Your task to perform on an android device: Add usb-c to usb-b to the cart on walmart.com Image 0: 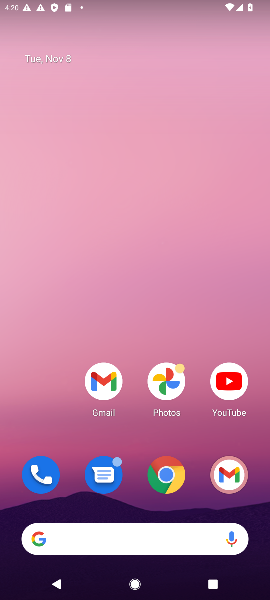
Step 0: drag from (109, 496) to (144, 18)
Your task to perform on an android device: Add usb-c to usb-b to the cart on walmart.com Image 1: 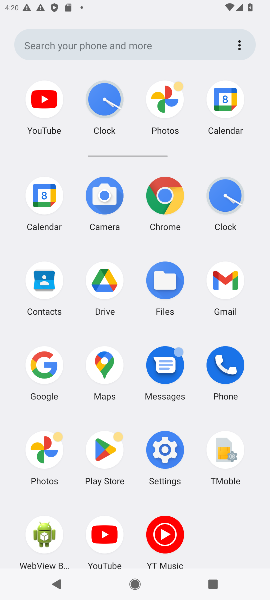
Step 1: click (42, 358)
Your task to perform on an android device: Add usb-c to usb-b to the cart on walmart.com Image 2: 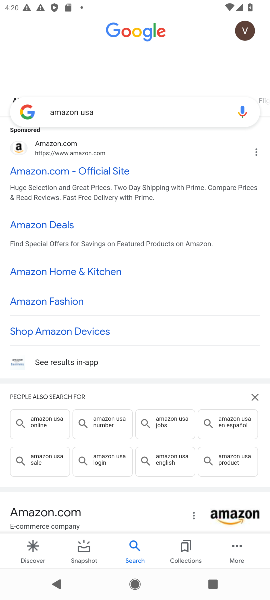
Step 2: click (101, 110)
Your task to perform on an android device: Add usb-c to usb-b to the cart on walmart.com Image 3: 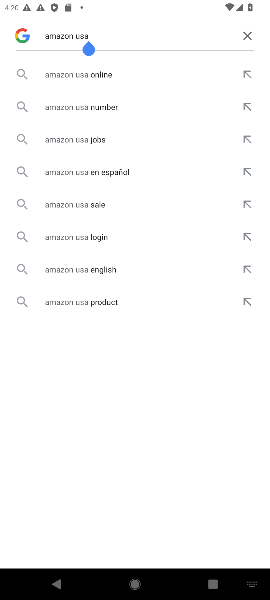
Step 3: click (244, 34)
Your task to perform on an android device: Add usb-c to usb-b to the cart on walmart.com Image 4: 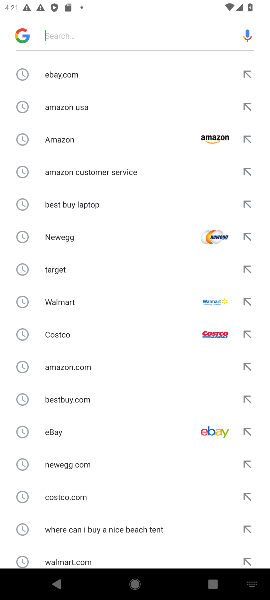
Step 4: click (129, 30)
Your task to perform on an android device: Add usb-c to usb-b to the cart on walmart.com Image 5: 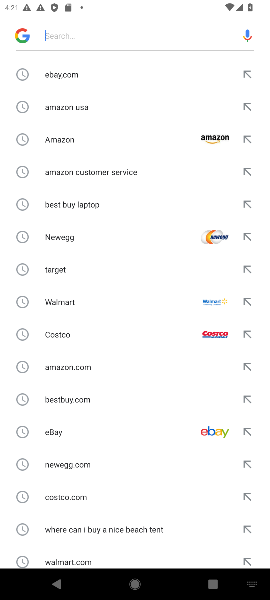
Step 5: type "walmart "
Your task to perform on an android device: Add usb-c to usb-b to the cart on walmart.com Image 6: 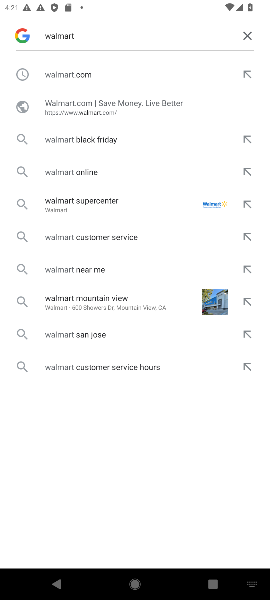
Step 6: click (78, 73)
Your task to perform on an android device: Add usb-c to usb-b to the cart on walmart.com Image 7: 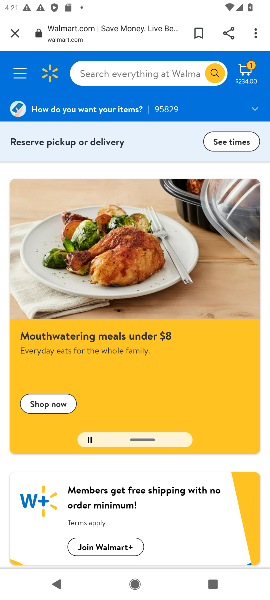
Step 7: click (117, 68)
Your task to perform on an android device: Add usb-c to usb-b to the cart on walmart.com Image 8: 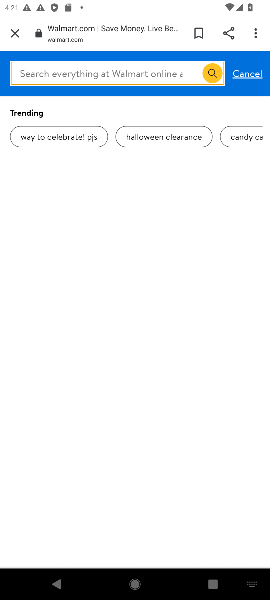
Step 8: type " usb-c to usb-b  "
Your task to perform on an android device: Add usb-c to usb-b to the cart on walmart.com Image 9: 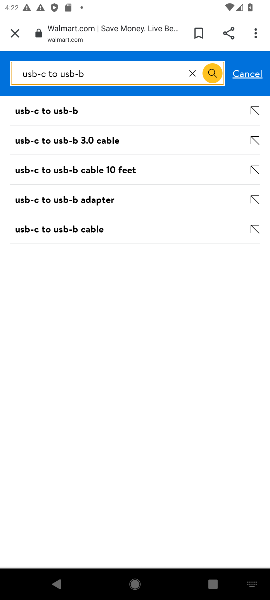
Step 9: click (45, 107)
Your task to perform on an android device: Add usb-c to usb-b to the cart on walmart.com Image 10: 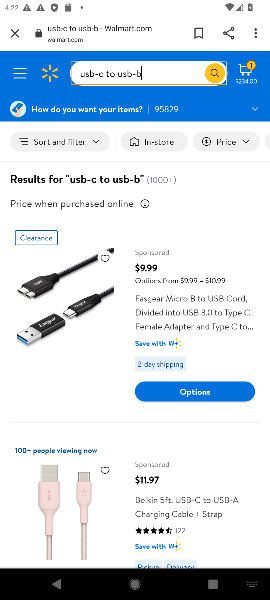
Step 10: click (168, 313)
Your task to perform on an android device: Add usb-c to usb-b to the cart on walmart.com Image 11: 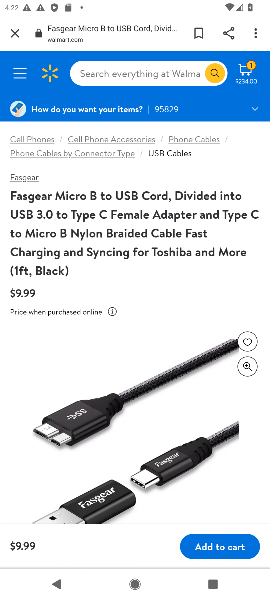
Step 11: click (220, 547)
Your task to perform on an android device: Add usb-c to usb-b to the cart on walmart.com Image 12: 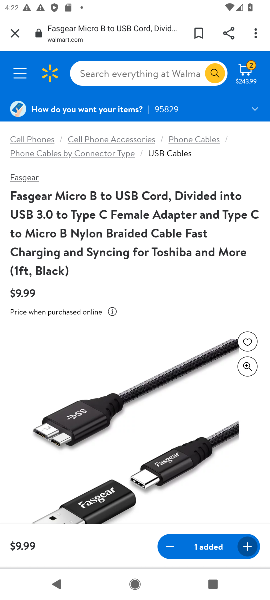
Step 12: task complete